Your task to perform on an android device: Open network settings Image 0: 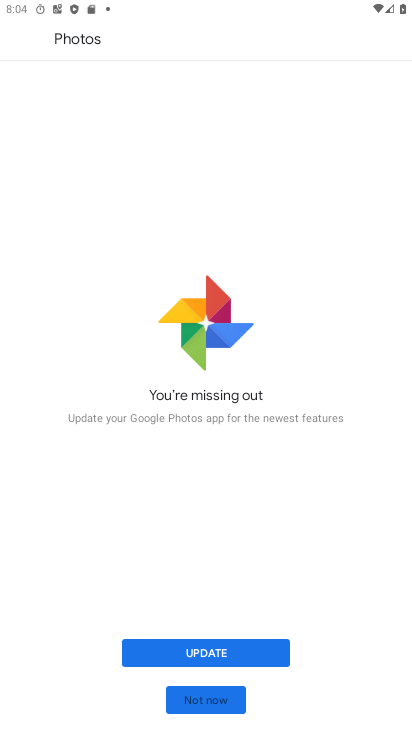
Step 0: press home button
Your task to perform on an android device: Open network settings Image 1: 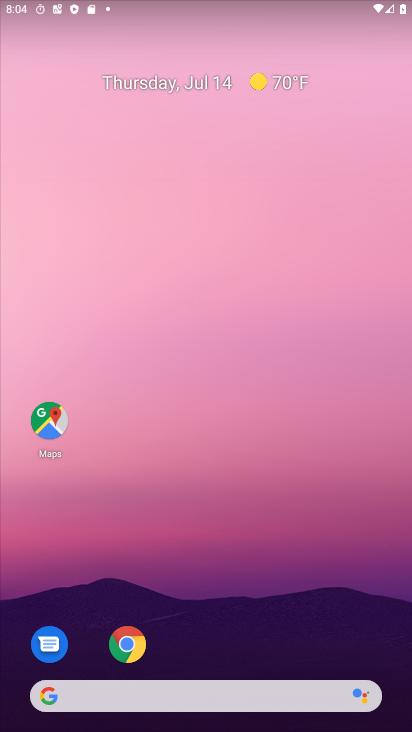
Step 1: drag from (274, 501) to (367, 222)
Your task to perform on an android device: Open network settings Image 2: 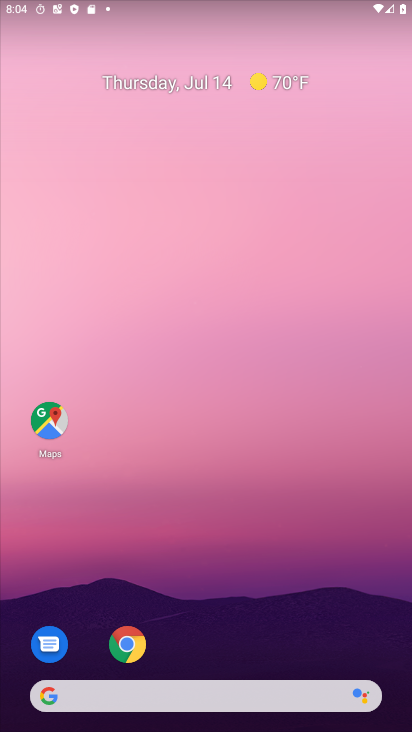
Step 2: drag from (201, 694) to (295, 68)
Your task to perform on an android device: Open network settings Image 3: 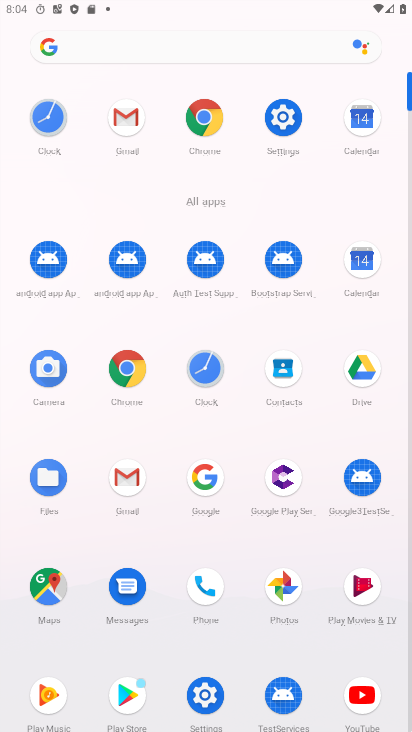
Step 3: click (277, 113)
Your task to perform on an android device: Open network settings Image 4: 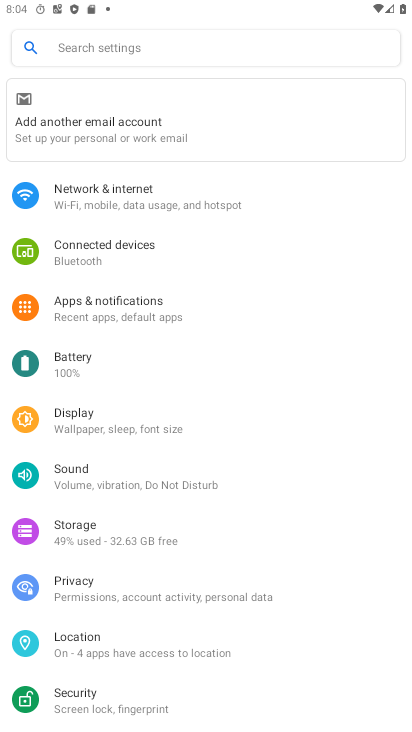
Step 4: click (125, 198)
Your task to perform on an android device: Open network settings Image 5: 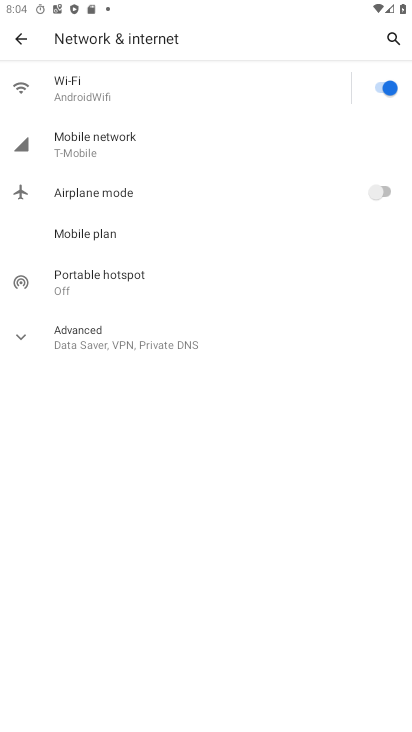
Step 5: click (106, 147)
Your task to perform on an android device: Open network settings Image 6: 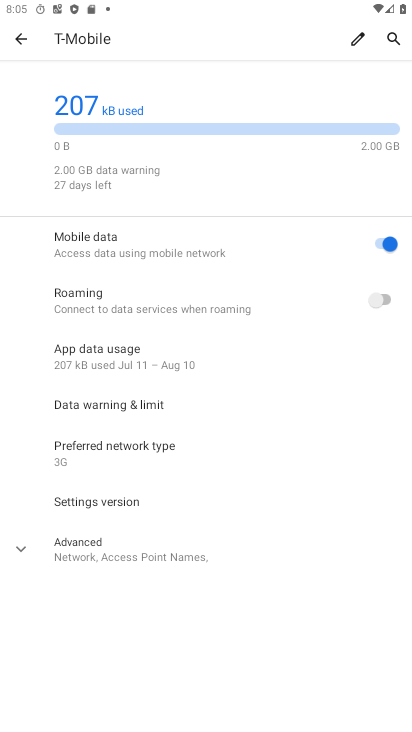
Step 6: task complete